Your task to perform on an android device: Open eBay Image 0: 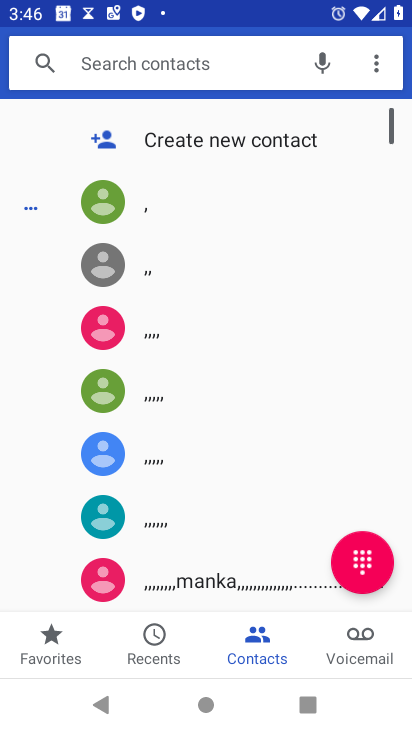
Step 0: press home button
Your task to perform on an android device: Open eBay Image 1: 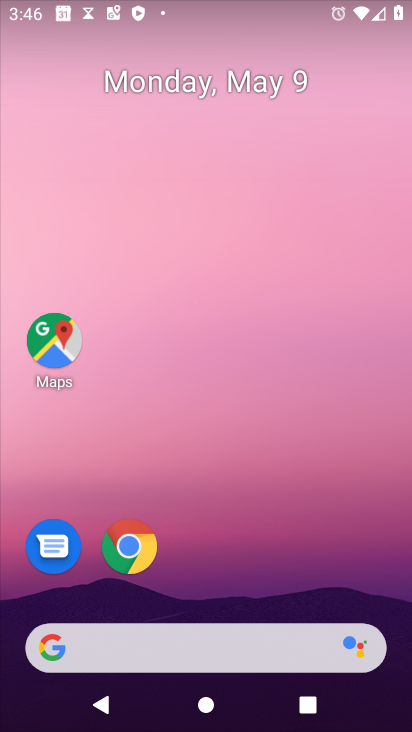
Step 1: drag from (349, 484) to (280, 96)
Your task to perform on an android device: Open eBay Image 2: 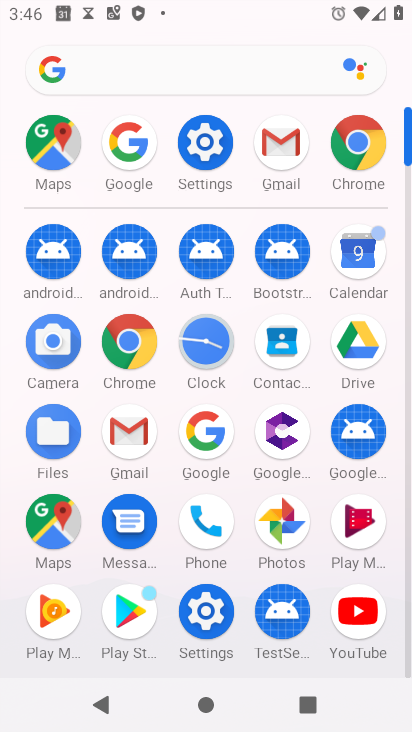
Step 2: click (346, 144)
Your task to perform on an android device: Open eBay Image 3: 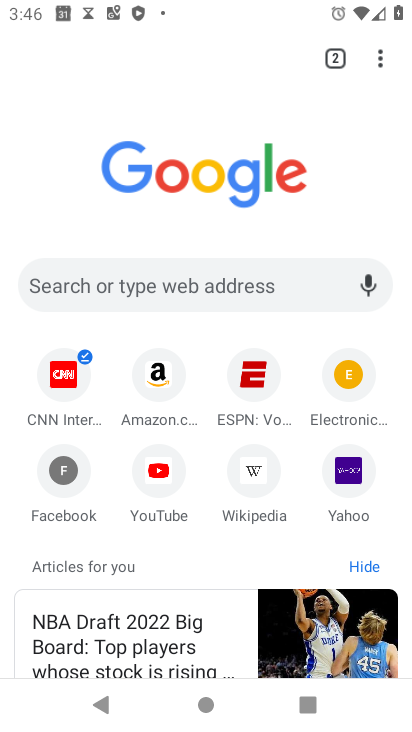
Step 3: click (210, 284)
Your task to perform on an android device: Open eBay Image 4: 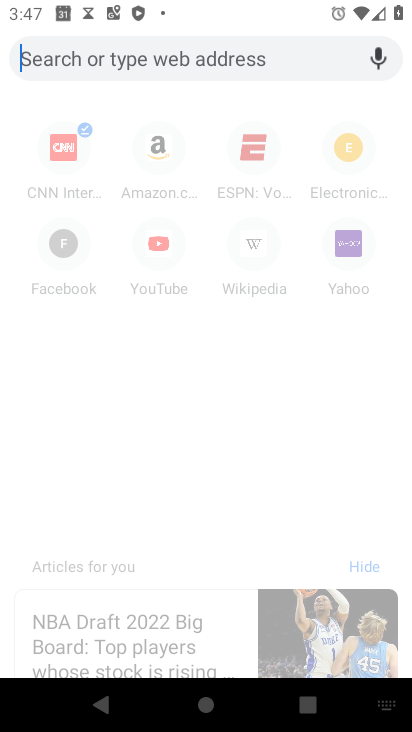
Step 4: type "ebay"
Your task to perform on an android device: Open eBay Image 5: 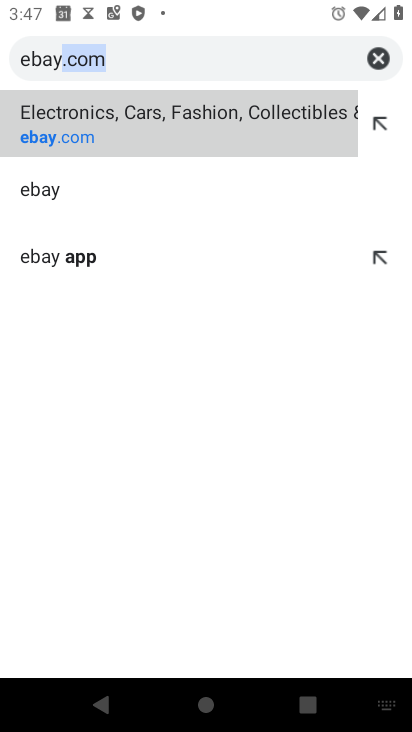
Step 5: click (154, 132)
Your task to perform on an android device: Open eBay Image 6: 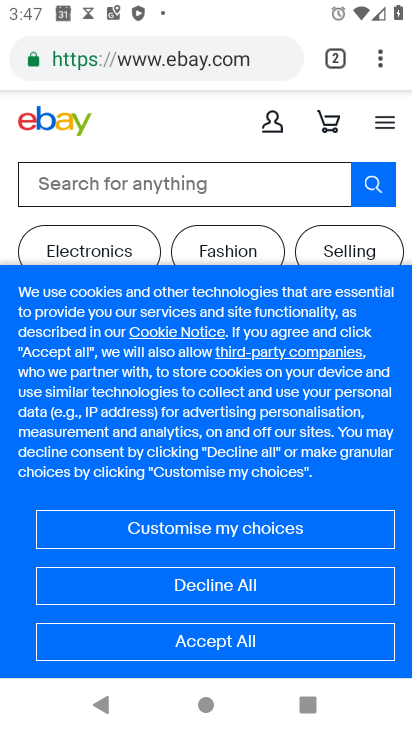
Step 6: task complete